Your task to perform on an android device: clear all cookies in the chrome app Image 0: 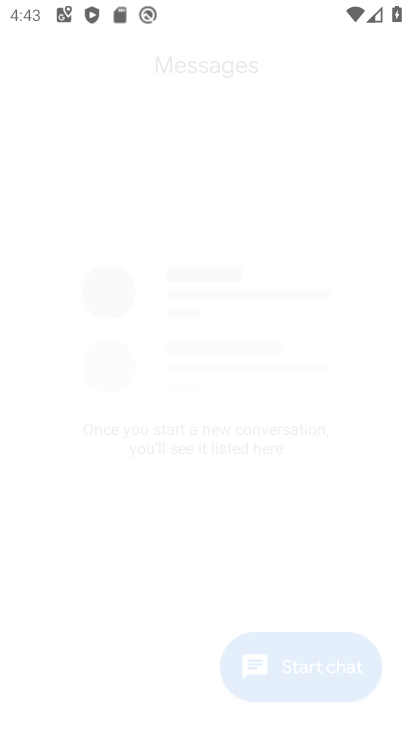
Step 0: drag from (322, 563) to (309, 83)
Your task to perform on an android device: clear all cookies in the chrome app Image 1: 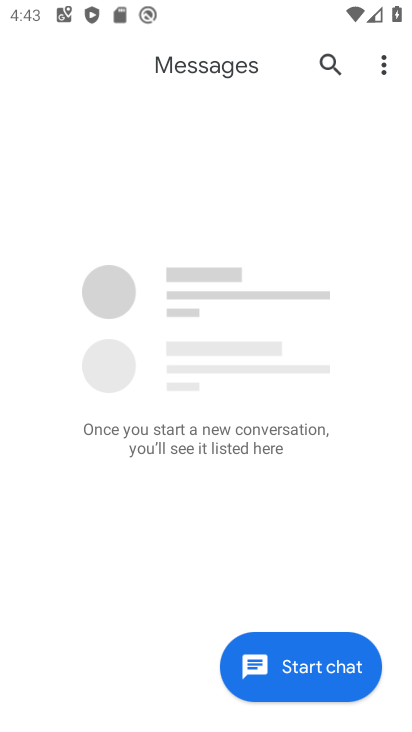
Step 1: press back button
Your task to perform on an android device: clear all cookies in the chrome app Image 2: 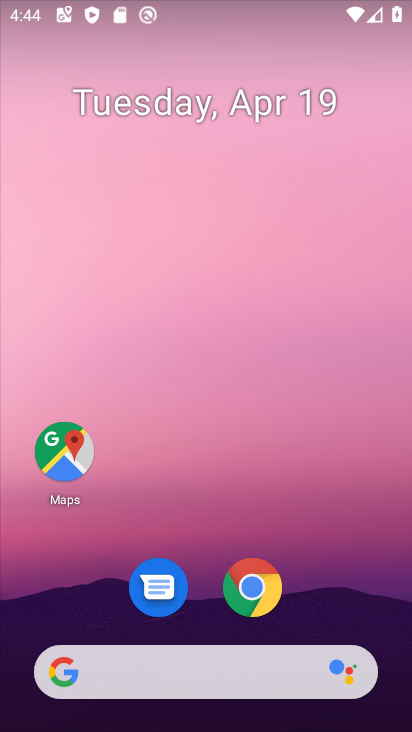
Step 2: drag from (340, 515) to (295, 64)
Your task to perform on an android device: clear all cookies in the chrome app Image 3: 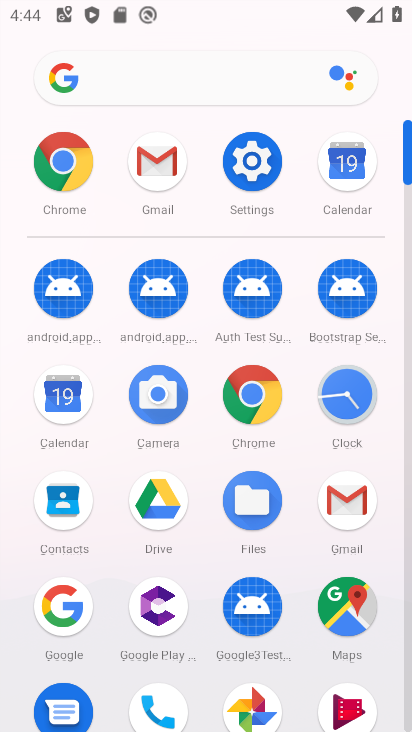
Step 3: click (58, 157)
Your task to perform on an android device: clear all cookies in the chrome app Image 4: 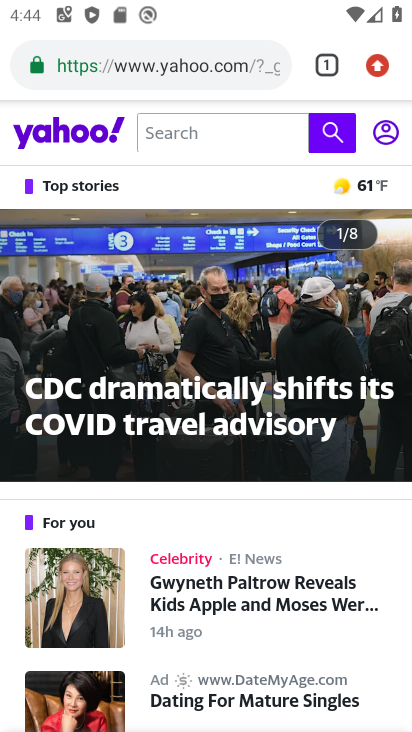
Step 4: drag from (377, 67) to (154, 629)
Your task to perform on an android device: clear all cookies in the chrome app Image 5: 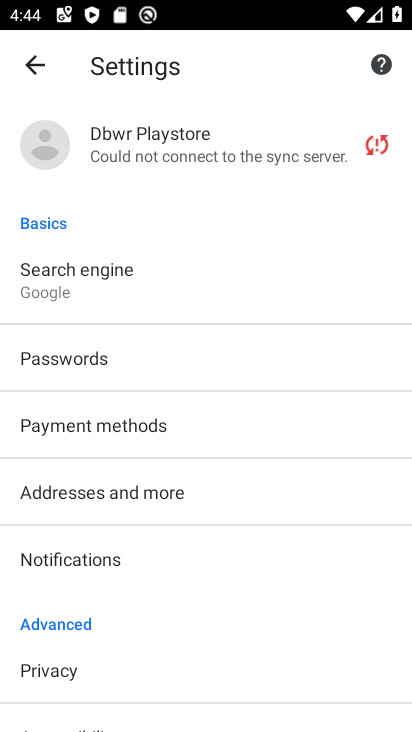
Step 5: drag from (196, 334) to (198, 218)
Your task to perform on an android device: clear all cookies in the chrome app Image 6: 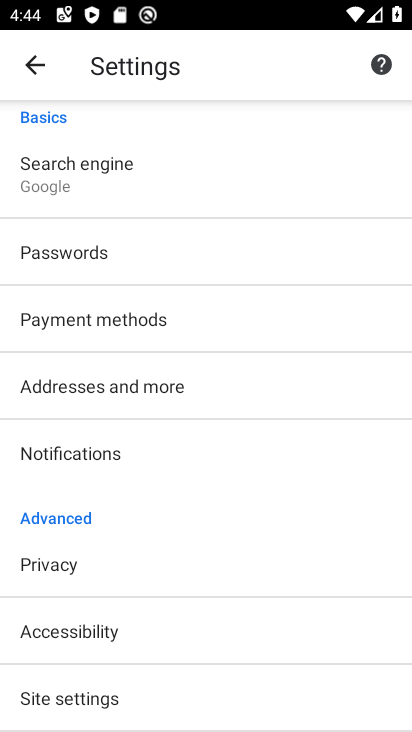
Step 6: click (93, 567)
Your task to perform on an android device: clear all cookies in the chrome app Image 7: 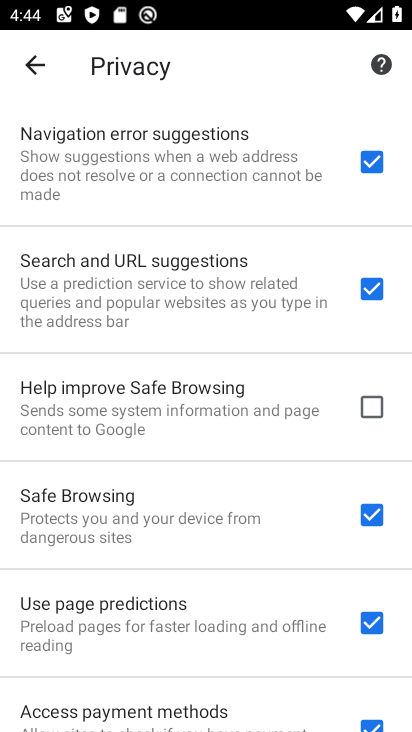
Step 7: drag from (189, 482) to (171, 100)
Your task to perform on an android device: clear all cookies in the chrome app Image 8: 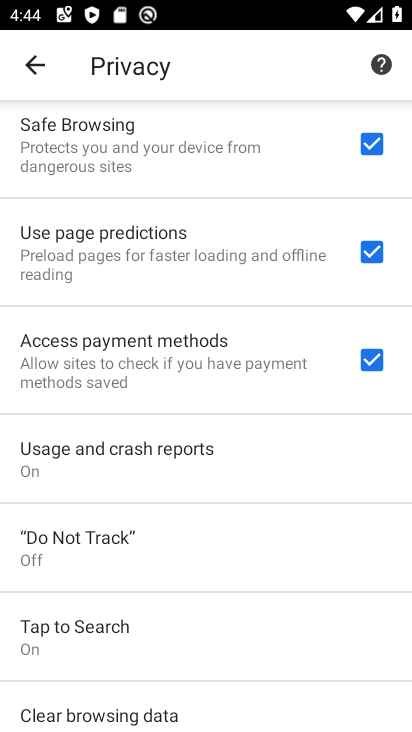
Step 8: drag from (197, 617) to (174, 259)
Your task to perform on an android device: clear all cookies in the chrome app Image 9: 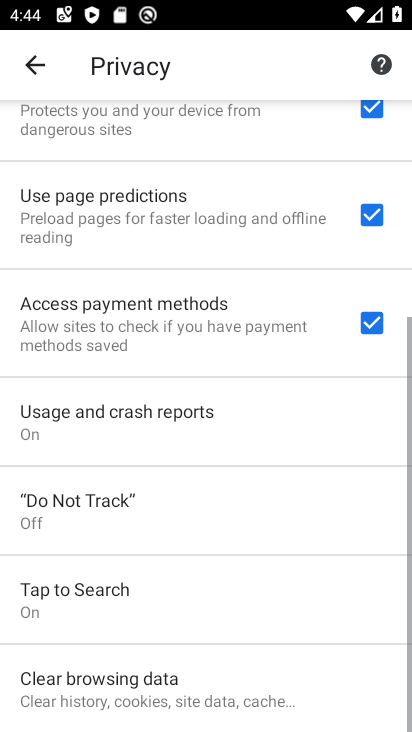
Step 9: click (171, 676)
Your task to perform on an android device: clear all cookies in the chrome app Image 10: 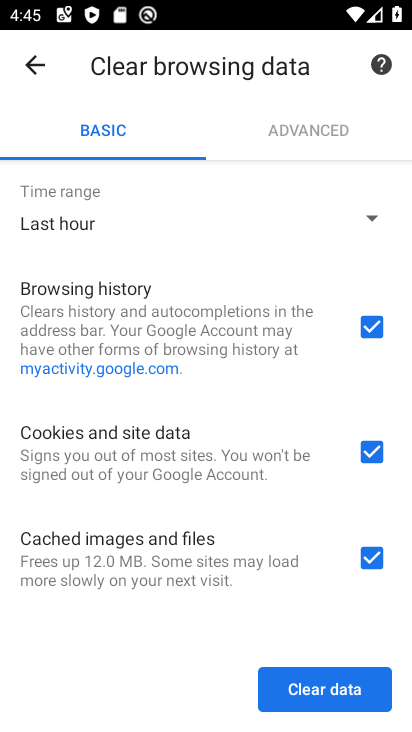
Step 10: drag from (174, 540) to (166, 223)
Your task to perform on an android device: clear all cookies in the chrome app Image 11: 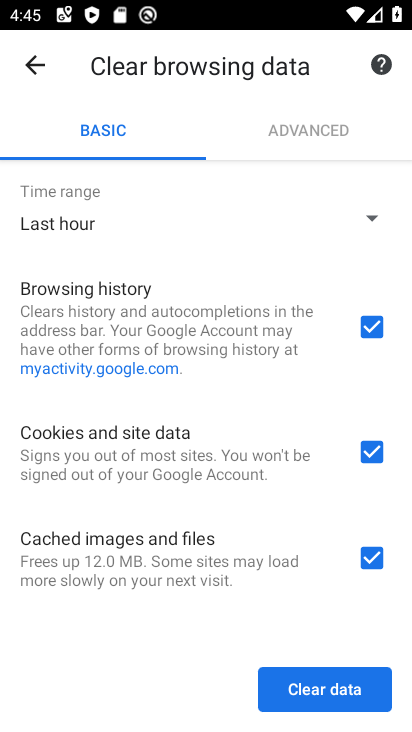
Step 11: click (379, 318)
Your task to perform on an android device: clear all cookies in the chrome app Image 12: 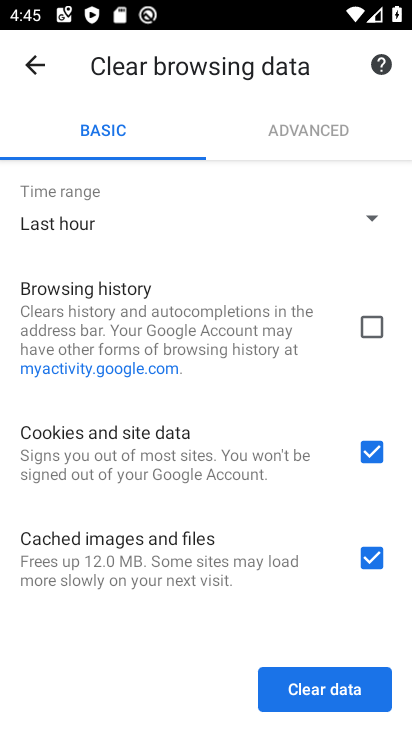
Step 12: click (386, 559)
Your task to perform on an android device: clear all cookies in the chrome app Image 13: 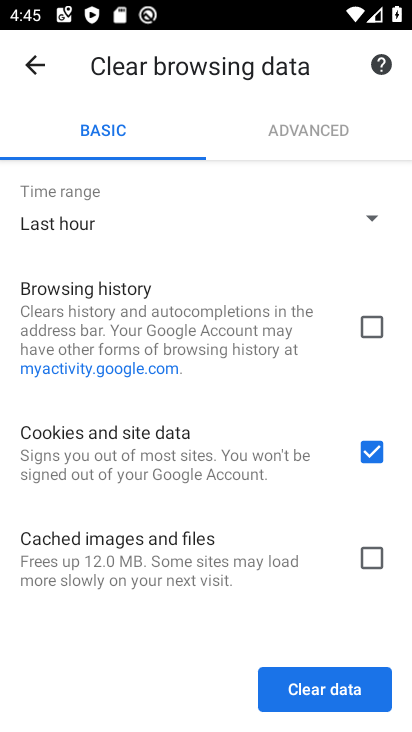
Step 13: click (347, 672)
Your task to perform on an android device: clear all cookies in the chrome app Image 14: 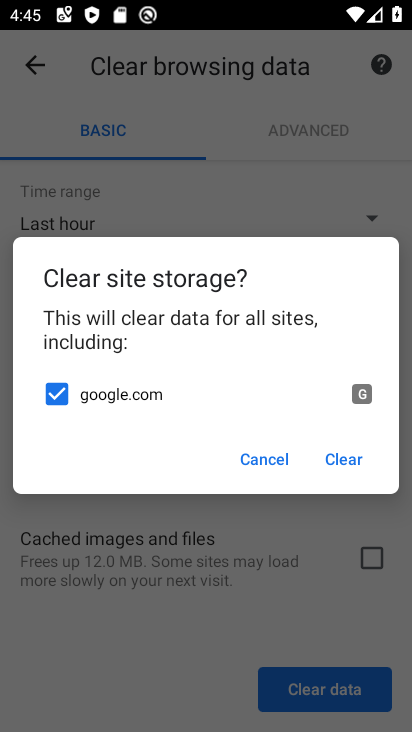
Step 14: click (334, 449)
Your task to perform on an android device: clear all cookies in the chrome app Image 15: 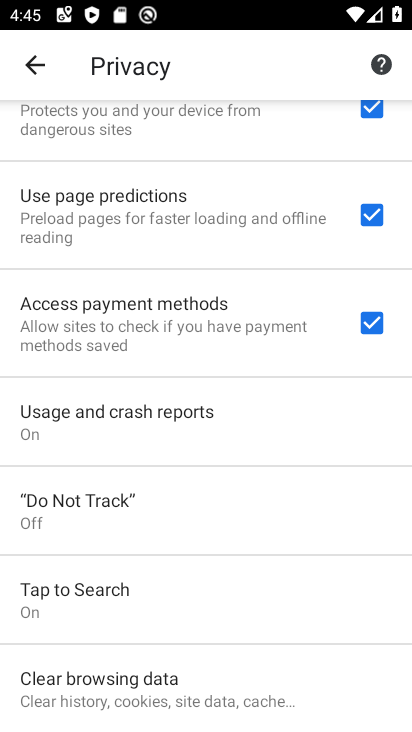
Step 15: task complete